Your task to perform on an android device: turn on sleep mode Image 0: 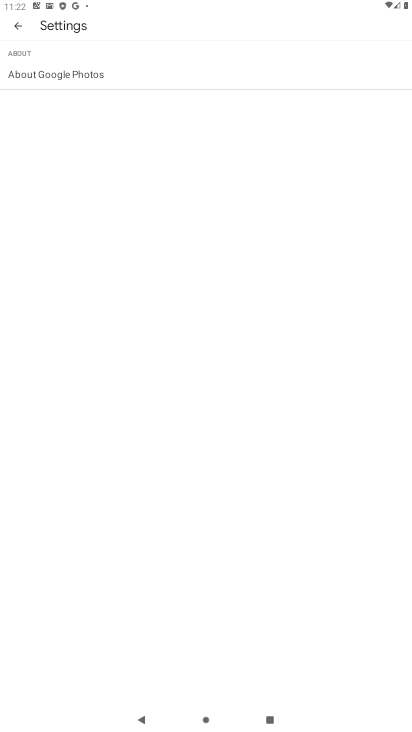
Step 0: press home button
Your task to perform on an android device: turn on sleep mode Image 1: 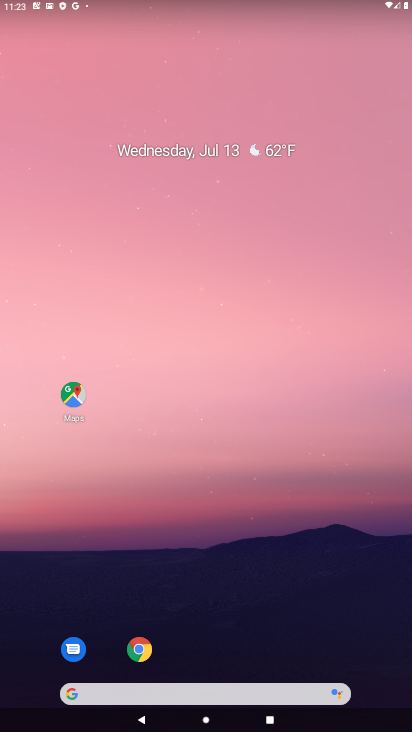
Step 1: drag from (363, 688) to (227, 2)
Your task to perform on an android device: turn on sleep mode Image 2: 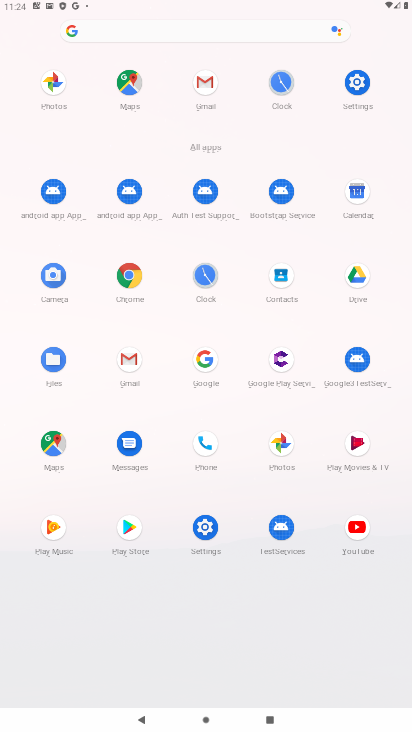
Step 2: click (203, 509)
Your task to perform on an android device: turn on sleep mode Image 3: 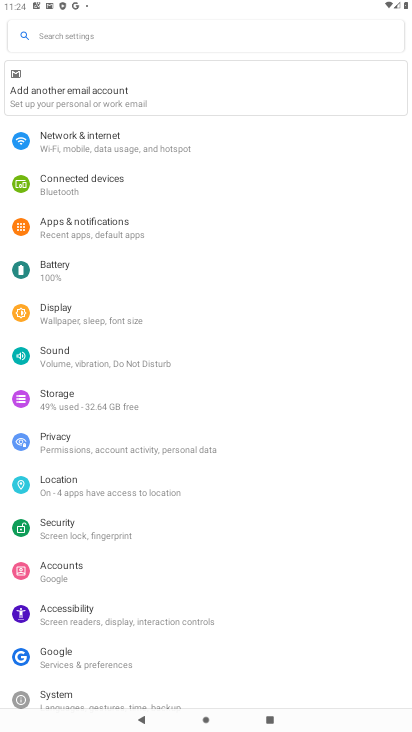
Step 3: task complete